Your task to perform on an android device: Show me recent news Image 0: 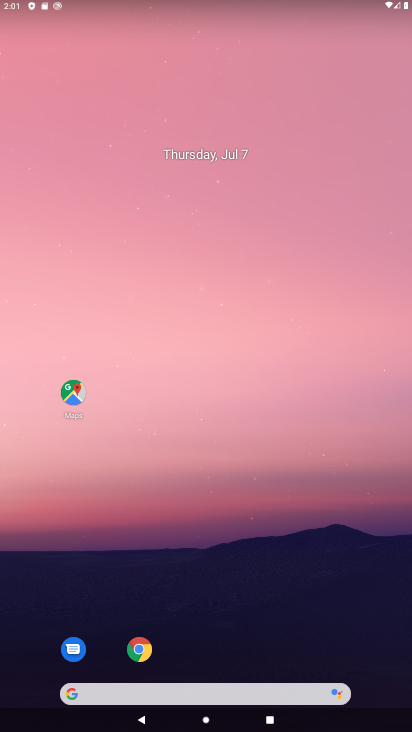
Step 0: drag from (254, 665) to (250, 2)
Your task to perform on an android device: Show me recent news Image 1: 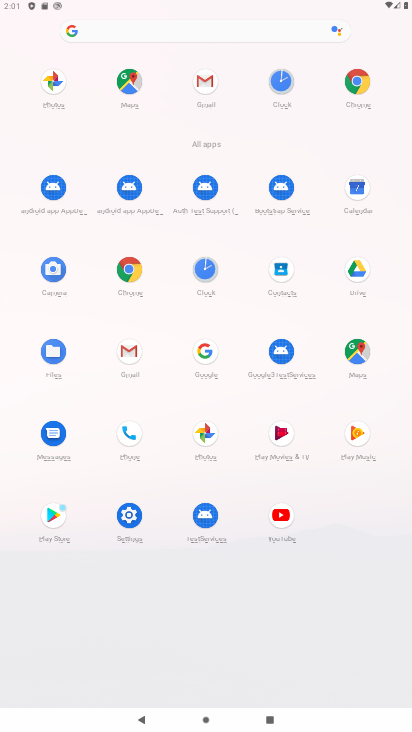
Step 1: click (138, 271)
Your task to perform on an android device: Show me recent news Image 2: 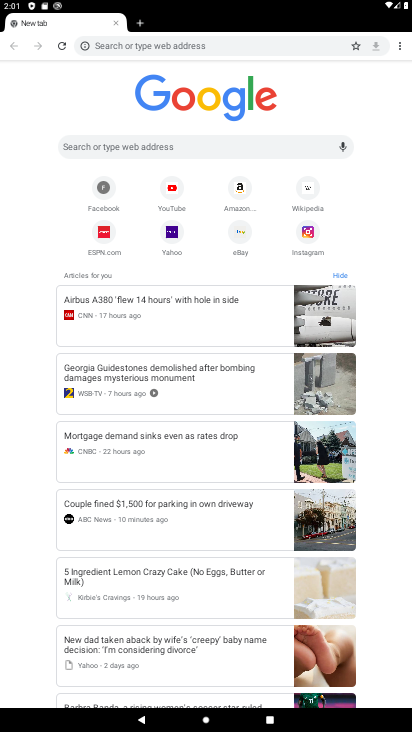
Step 2: click (218, 150)
Your task to perform on an android device: Show me recent news Image 3: 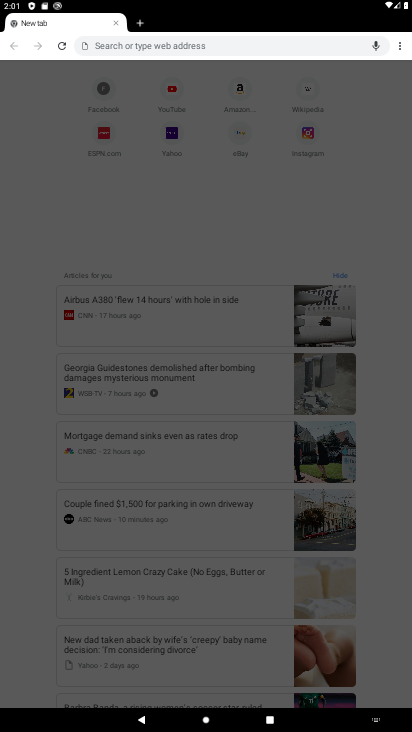
Step 3: type "recent news"
Your task to perform on an android device: Show me recent news Image 4: 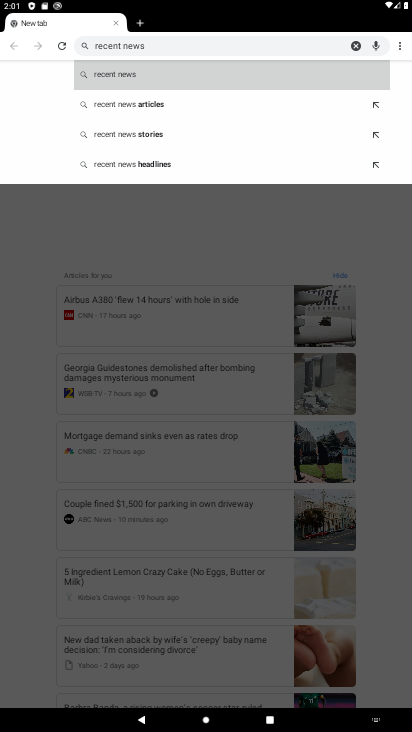
Step 4: click (152, 77)
Your task to perform on an android device: Show me recent news Image 5: 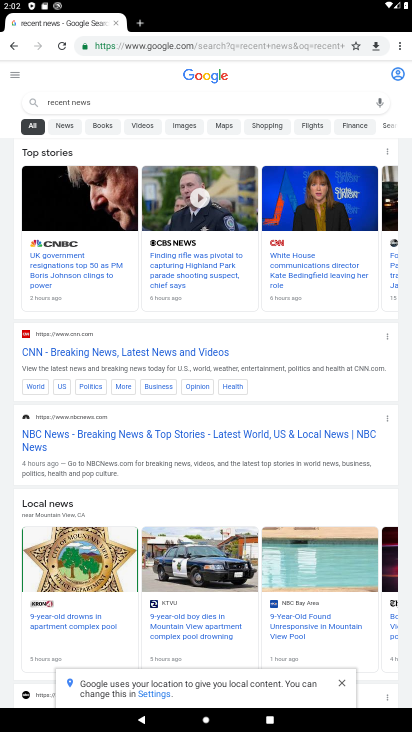
Step 5: task complete